Your task to perform on an android device: turn on airplane mode Image 0: 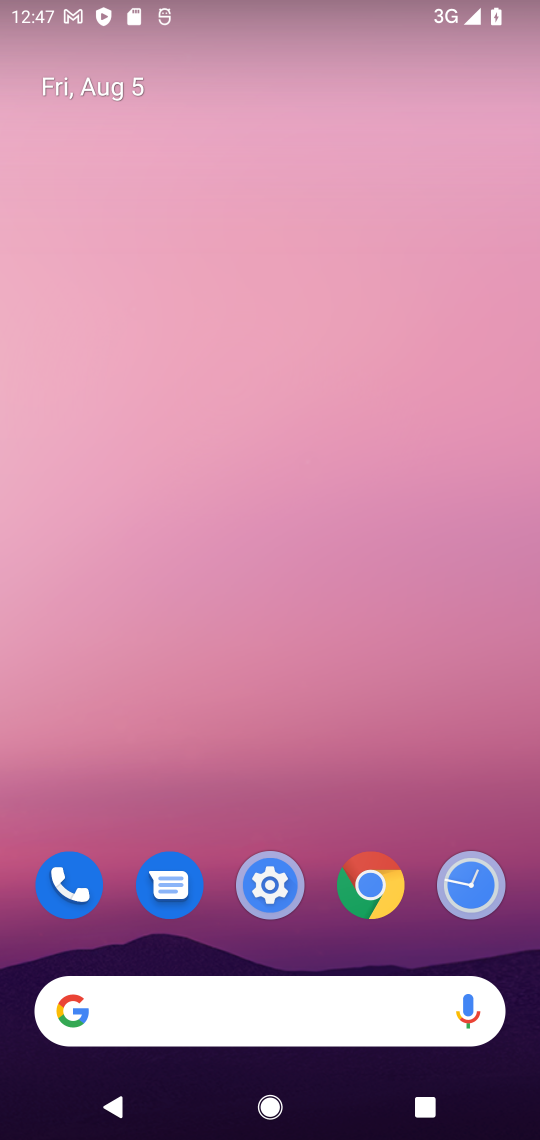
Step 0: click (262, 890)
Your task to perform on an android device: turn on airplane mode Image 1: 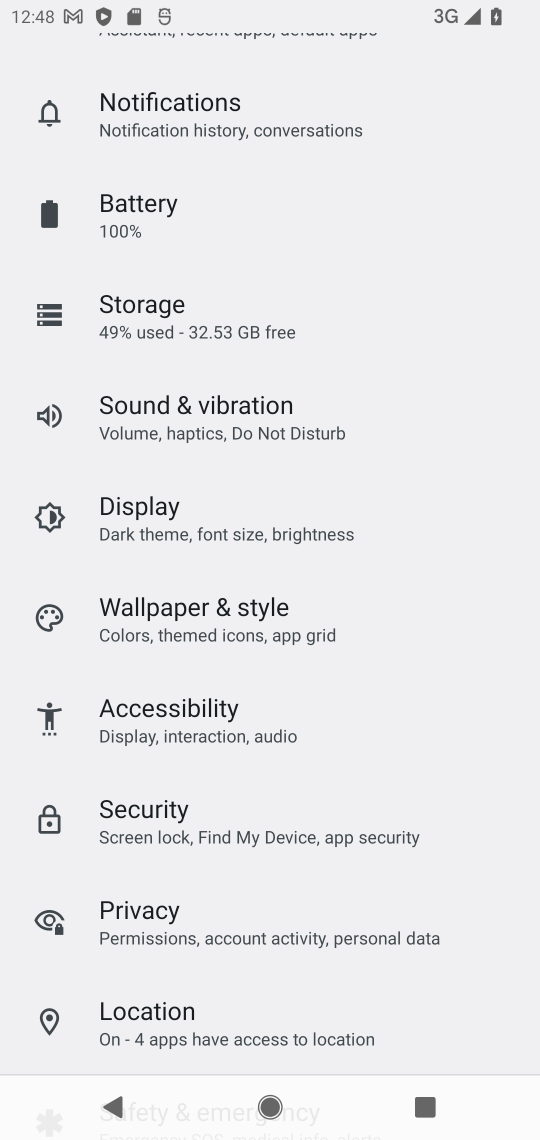
Step 1: drag from (217, 329) to (212, 728)
Your task to perform on an android device: turn on airplane mode Image 2: 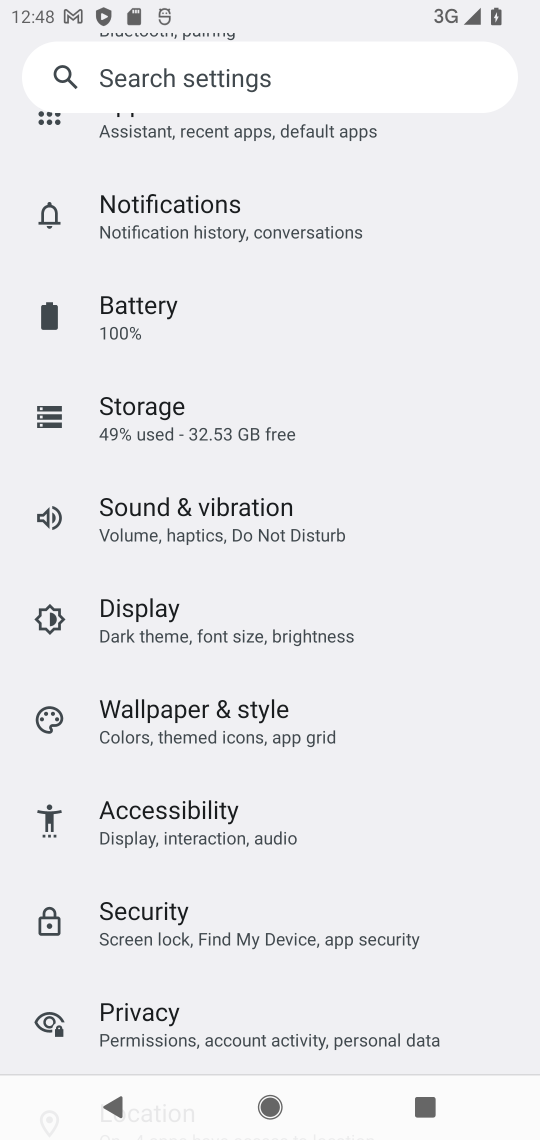
Step 2: drag from (212, 429) to (166, 638)
Your task to perform on an android device: turn on airplane mode Image 3: 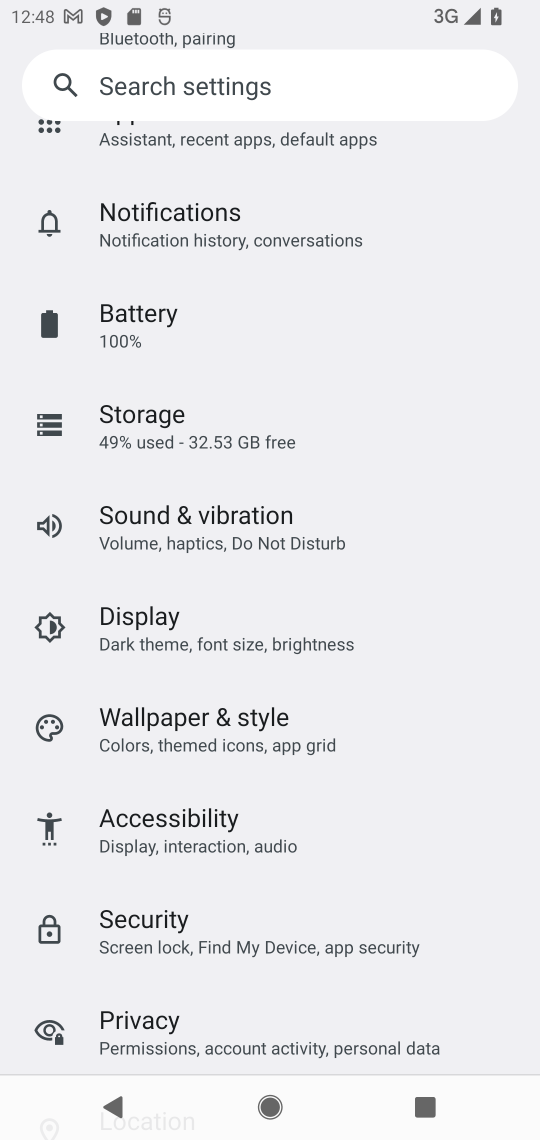
Step 3: drag from (215, 264) to (220, 568)
Your task to perform on an android device: turn on airplane mode Image 4: 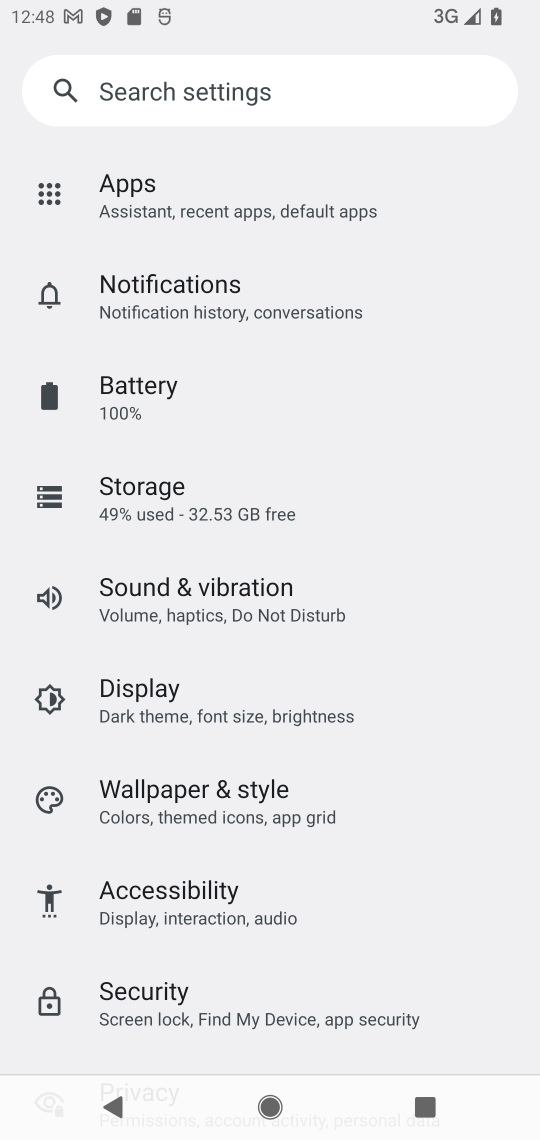
Step 4: click (182, 778)
Your task to perform on an android device: turn on airplane mode Image 5: 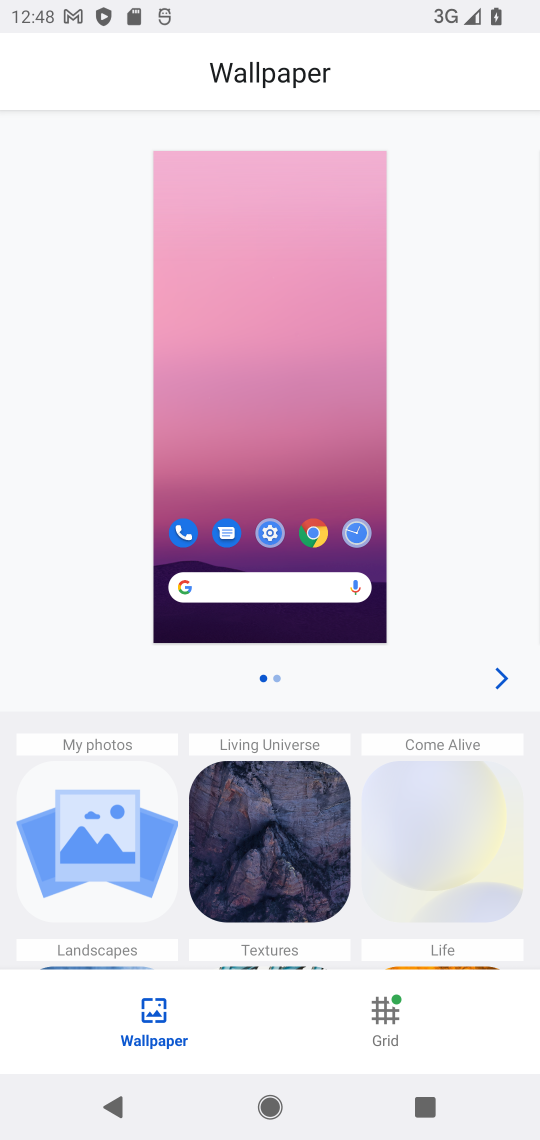
Step 5: press back button
Your task to perform on an android device: turn on airplane mode Image 6: 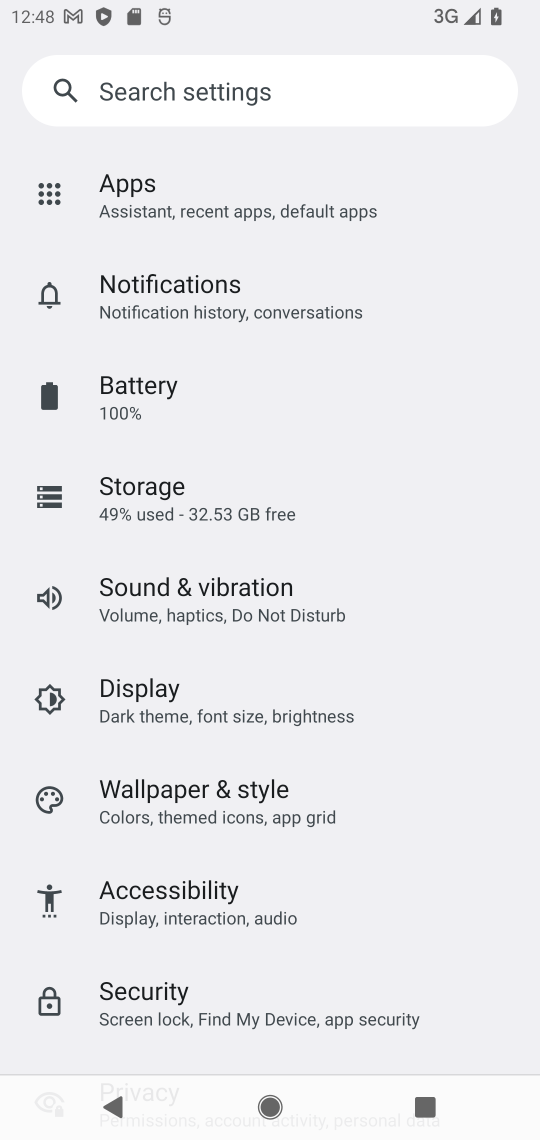
Step 6: drag from (211, 472) to (178, 919)
Your task to perform on an android device: turn on airplane mode Image 7: 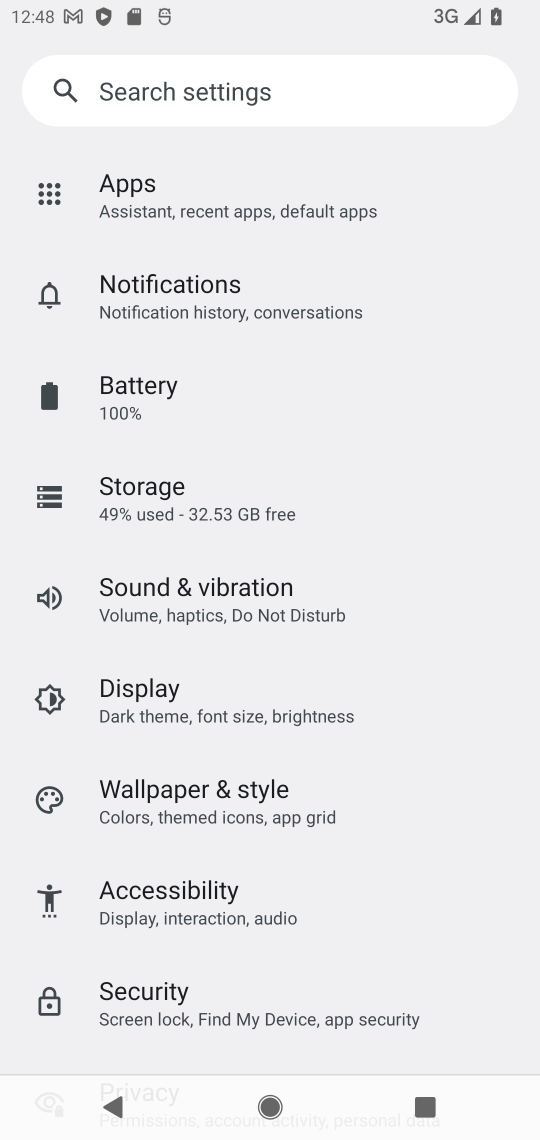
Step 7: drag from (348, 475) to (196, 1109)
Your task to perform on an android device: turn on airplane mode Image 8: 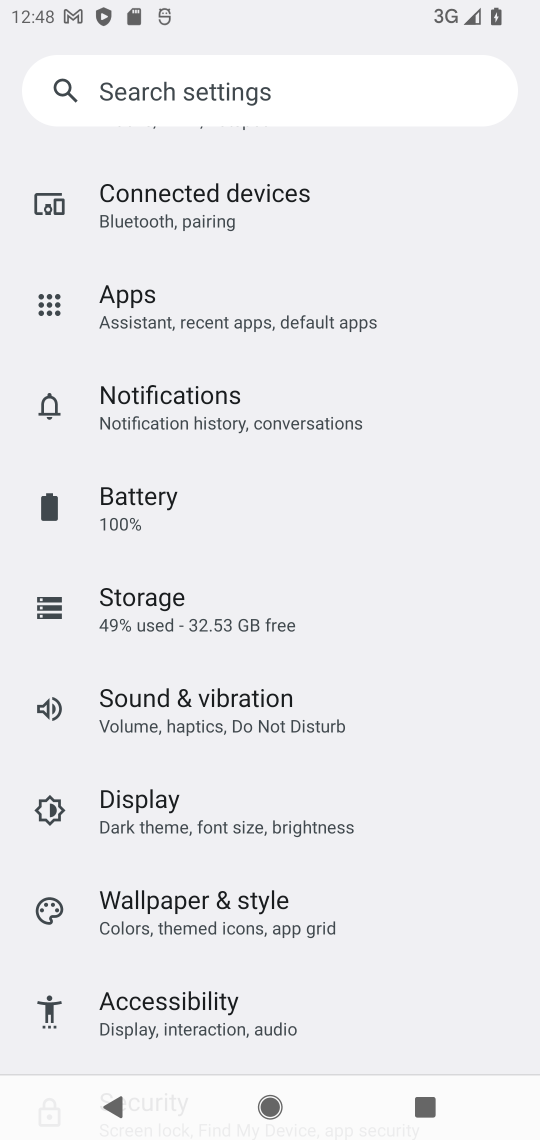
Step 8: drag from (321, 504) to (312, 914)
Your task to perform on an android device: turn on airplane mode Image 9: 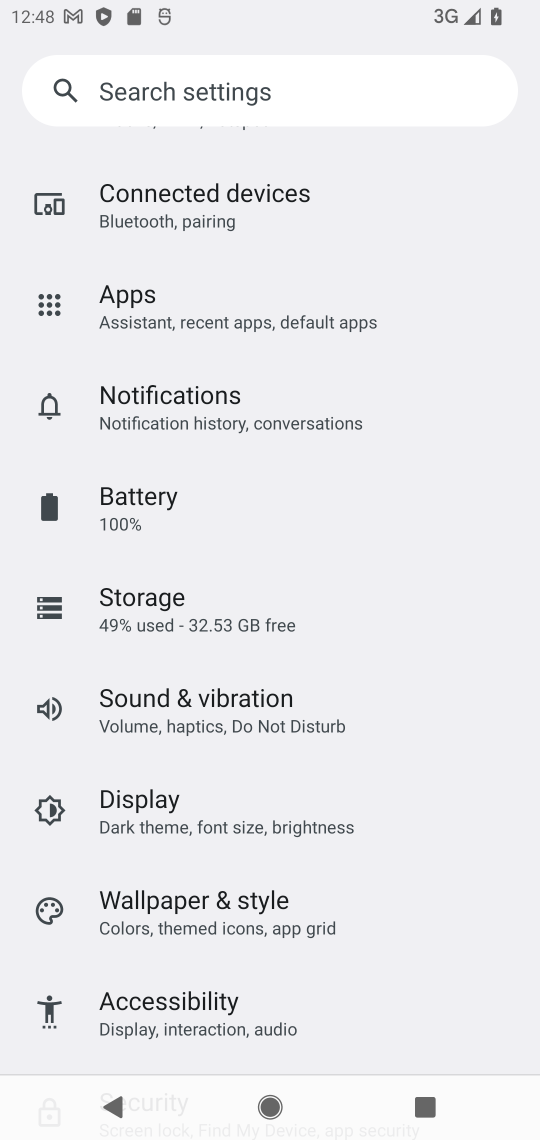
Step 9: drag from (239, 480) to (204, 891)
Your task to perform on an android device: turn on airplane mode Image 10: 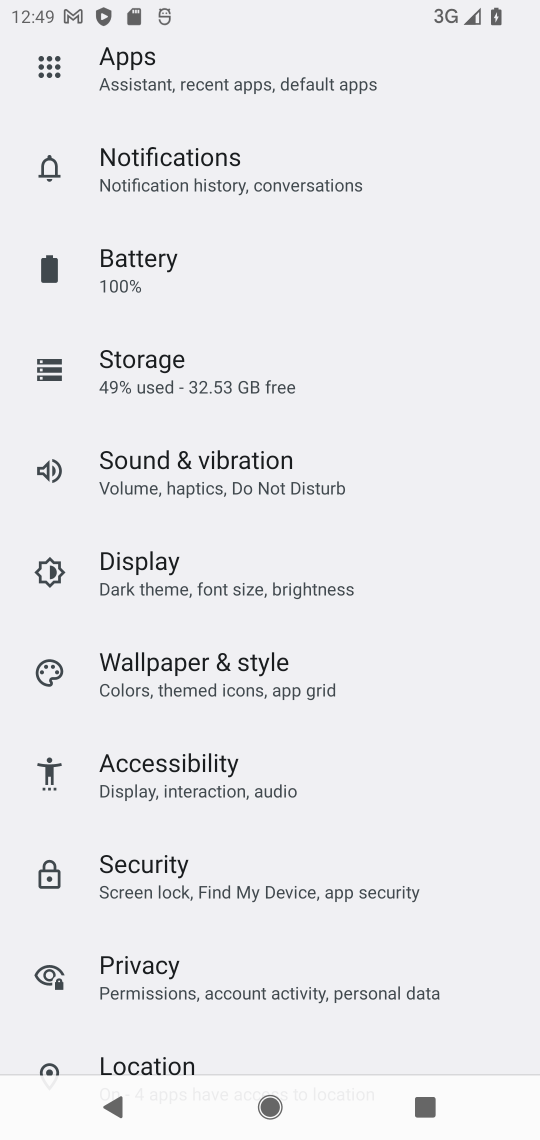
Step 10: drag from (255, 316) to (197, 885)
Your task to perform on an android device: turn on airplane mode Image 11: 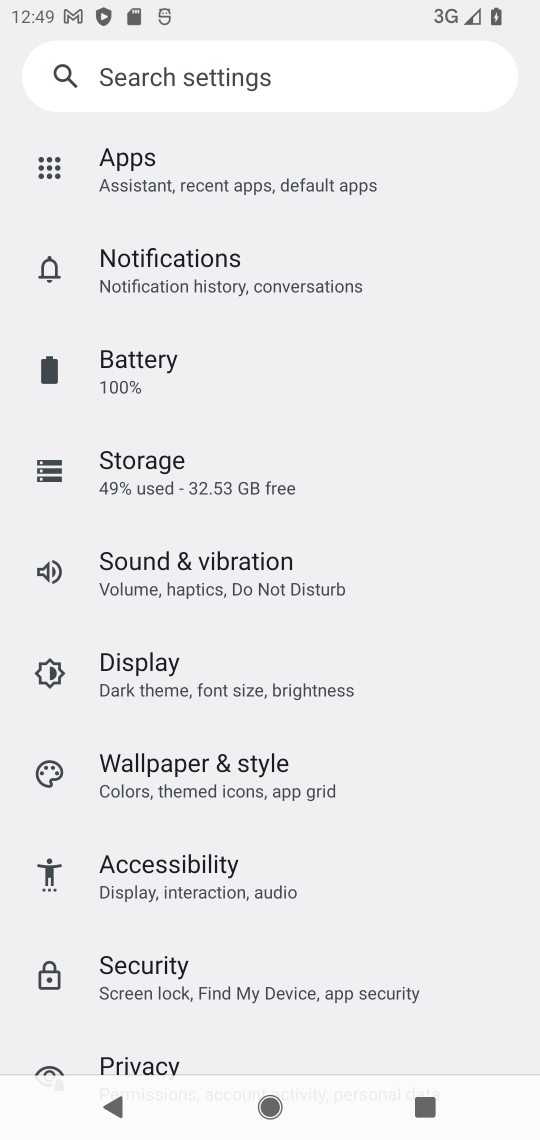
Step 11: click (284, 889)
Your task to perform on an android device: turn on airplane mode Image 12: 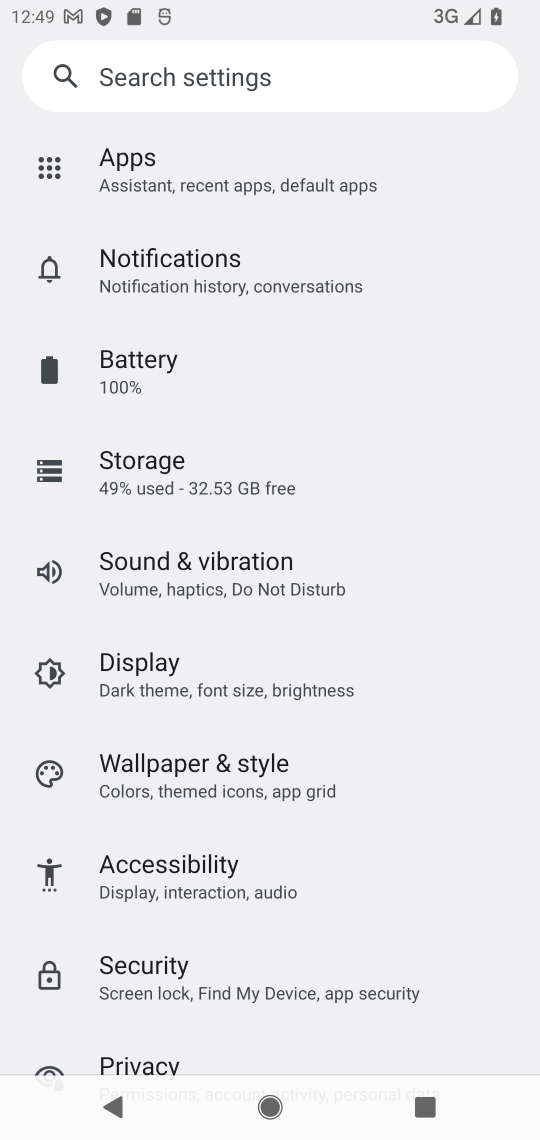
Step 12: drag from (312, 244) to (301, 1043)
Your task to perform on an android device: turn on airplane mode Image 13: 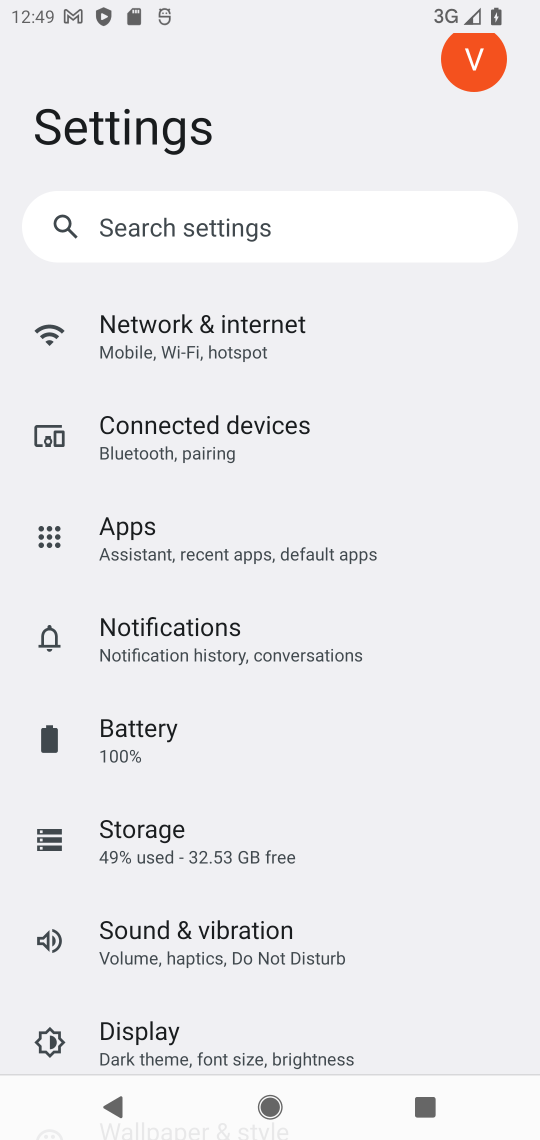
Step 13: click (249, 336)
Your task to perform on an android device: turn on airplane mode Image 14: 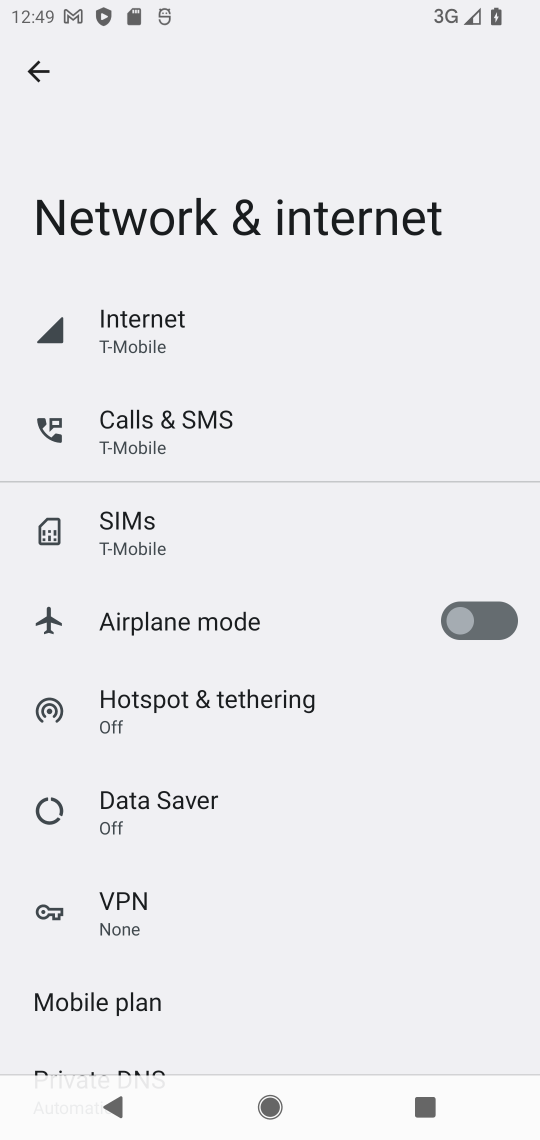
Step 14: click (502, 624)
Your task to perform on an android device: turn on airplane mode Image 15: 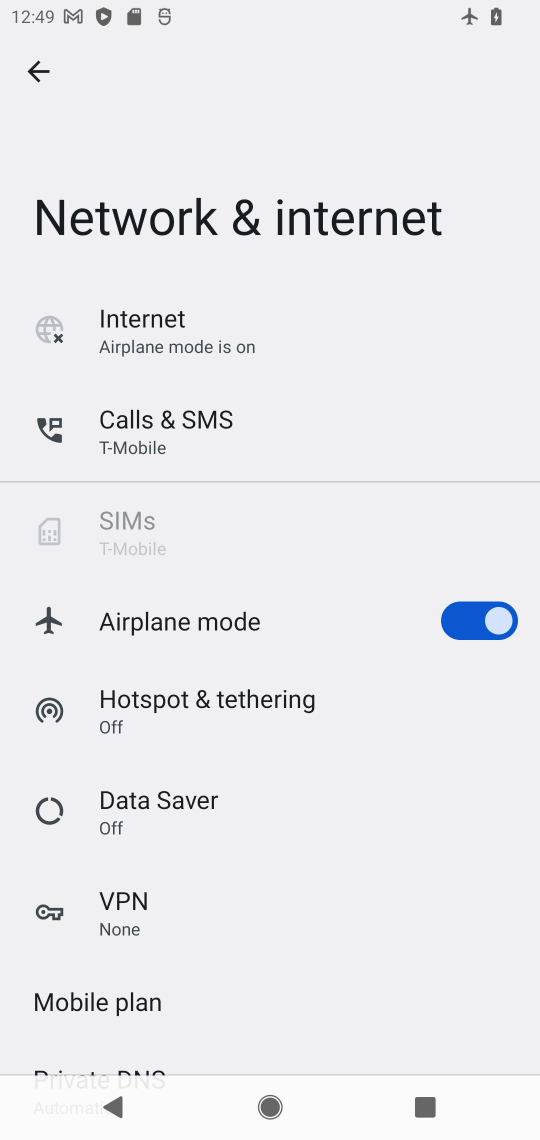
Step 15: task complete